Your task to perform on an android device: choose inbox layout in the gmail app Image 0: 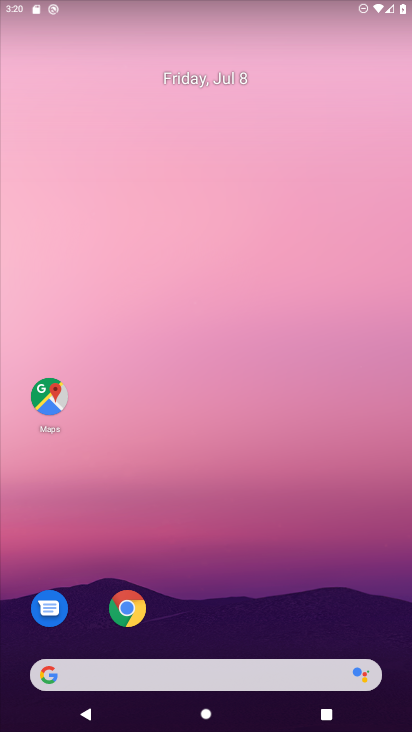
Step 0: drag from (335, 578) to (271, 182)
Your task to perform on an android device: choose inbox layout in the gmail app Image 1: 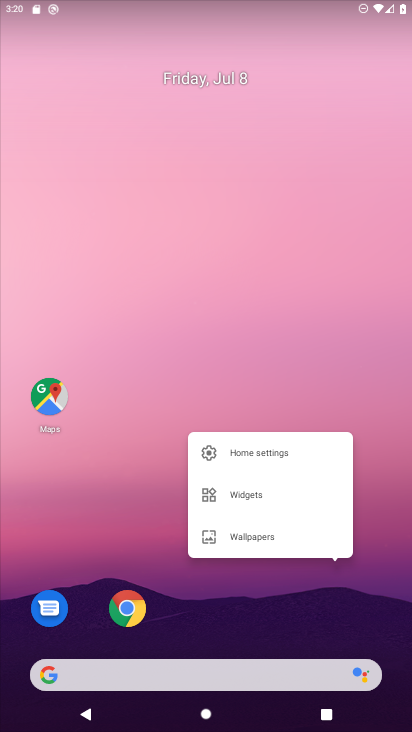
Step 1: click (264, 277)
Your task to perform on an android device: choose inbox layout in the gmail app Image 2: 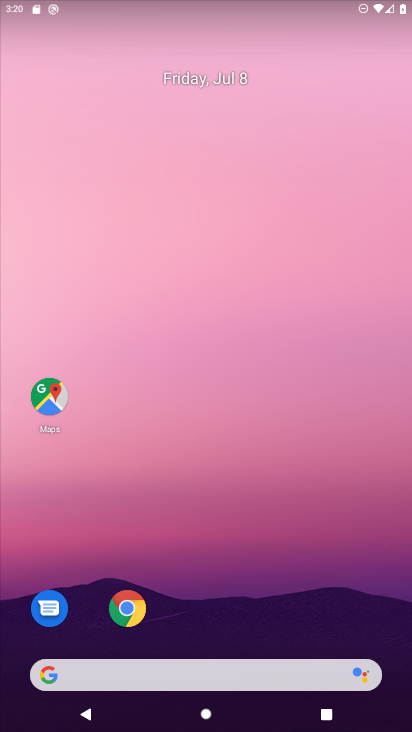
Step 2: drag from (219, 615) to (303, 26)
Your task to perform on an android device: choose inbox layout in the gmail app Image 3: 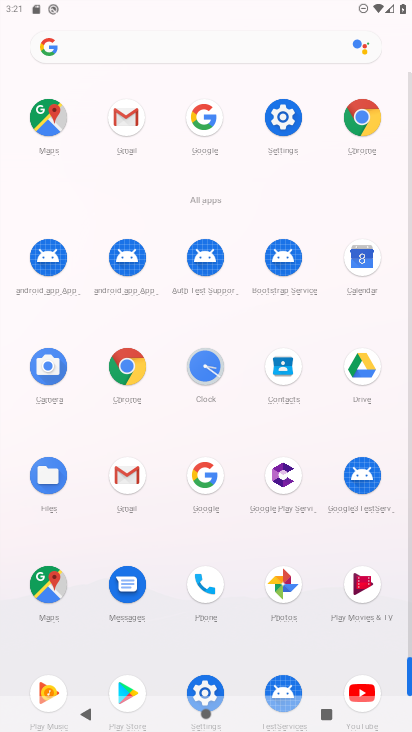
Step 3: click (130, 481)
Your task to perform on an android device: choose inbox layout in the gmail app Image 4: 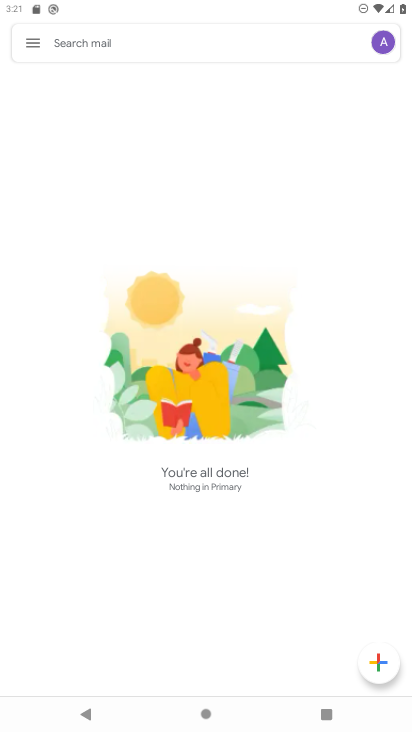
Step 4: click (35, 45)
Your task to perform on an android device: choose inbox layout in the gmail app Image 5: 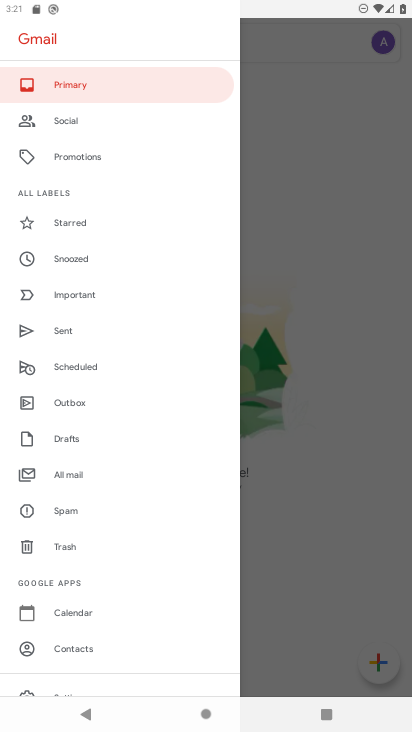
Step 5: drag from (74, 639) to (133, 275)
Your task to perform on an android device: choose inbox layout in the gmail app Image 6: 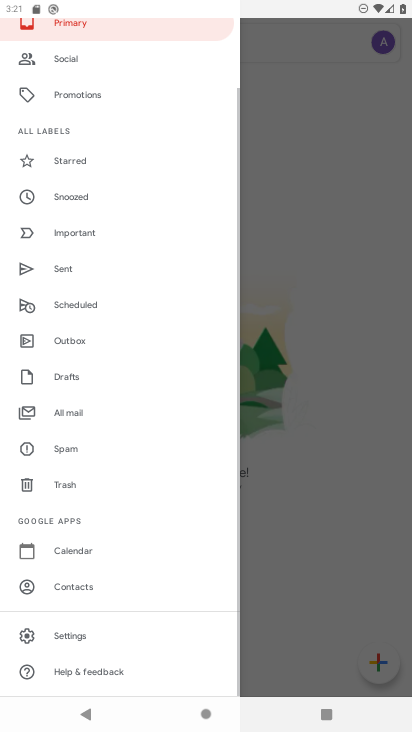
Step 6: click (67, 630)
Your task to perform on an android device: choose inbox layout in the gmail app Image 7: 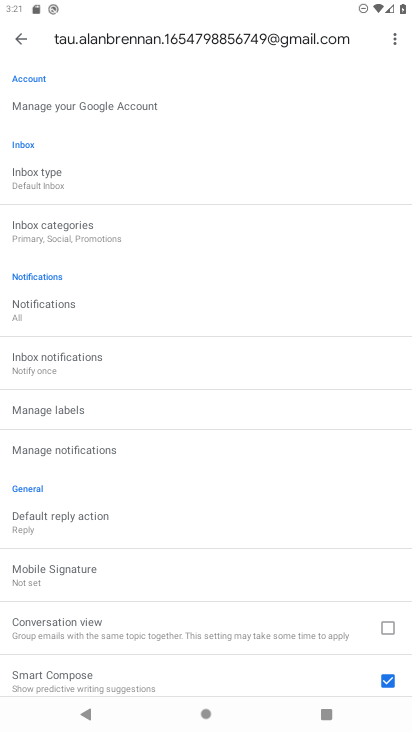
Step 7: click (38, 182)
Your task to perform on an android device: choose inbox layout in the gmail app Image 8: 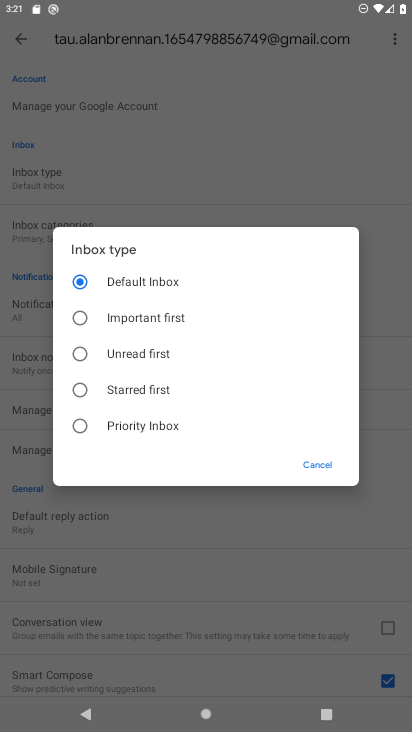
Step 8: click (159, 357)
Your task to perform on an android device: choose inbox layout in the gmail app Image 9: 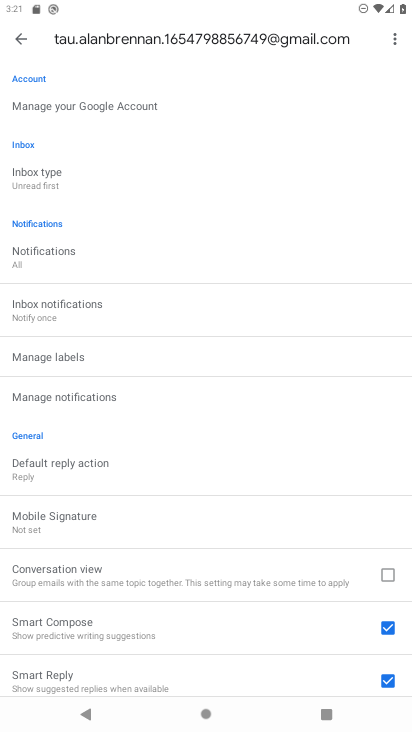
Step 9: task complete